Your task to perform on an android device: Go to internet settings Image 0: 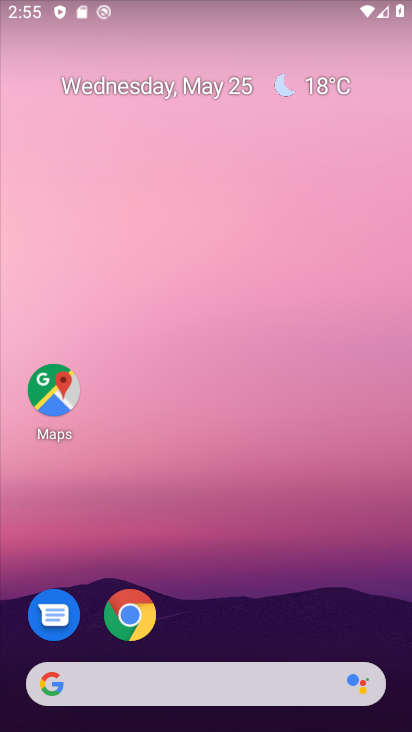
Step 0: drag from (336, 716) to (296, 244)
Your task to perform on an android device: Go to internet settings Image 1: 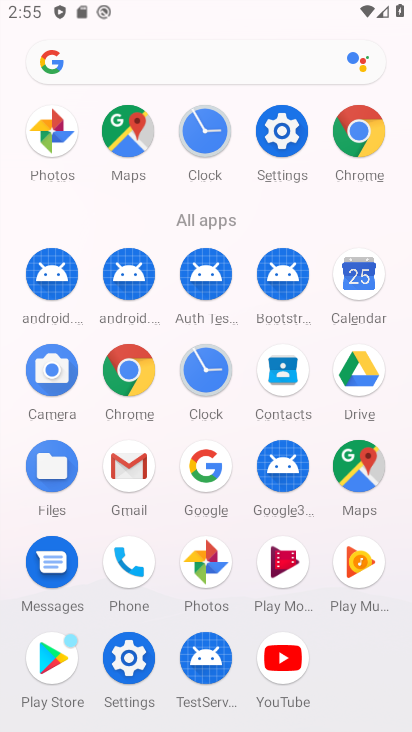
Step 1: click (287, 131)
Your task to perform on an android device: Go to internet settings Image 2: 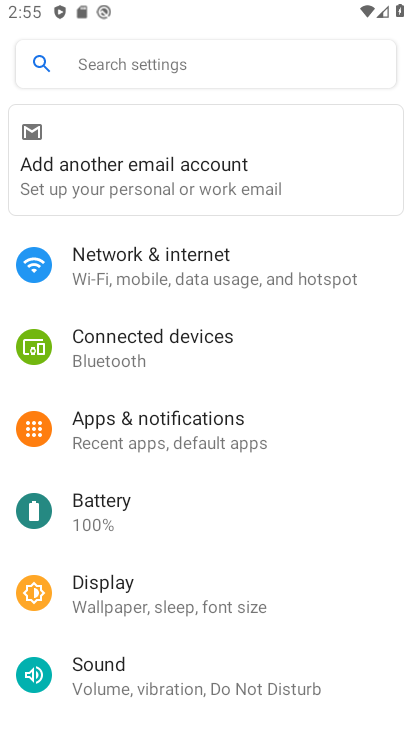
Step 2: click (180, 266)
Your task to perform on an android device: Go to internet settings Image 3: 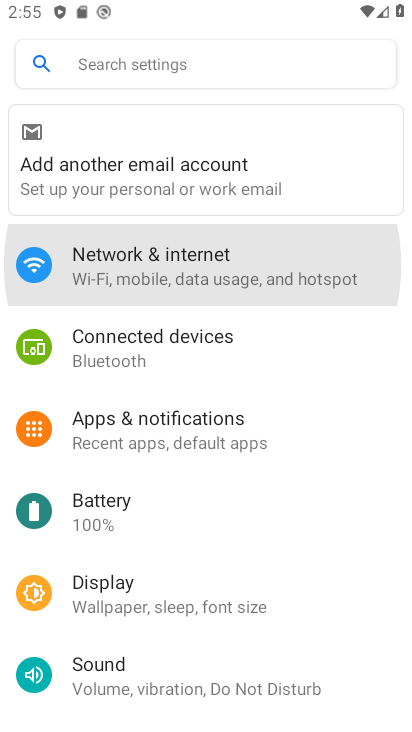
Step 3: click (183, 265)
Your task to perform on an android device: Go to internet settings Image 4: 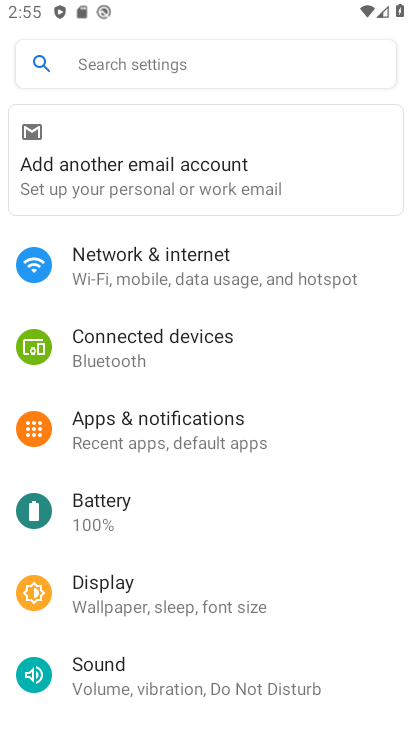
Step 4: click (184, 265)
Your task to perform on an android device: Go to internet settings Image 5: 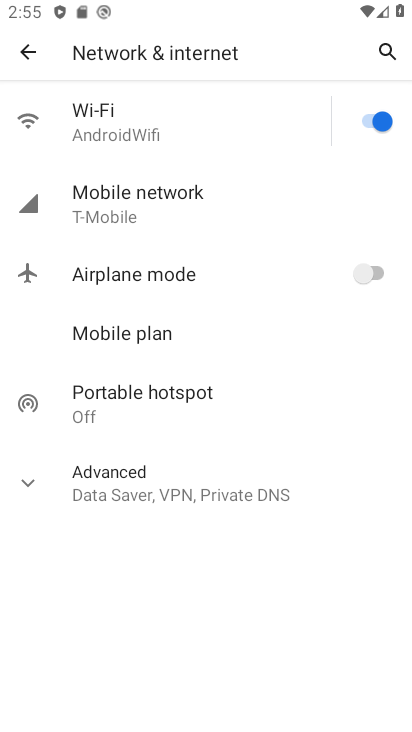
Step 5: task complete